Your task to perform on an android device: Open Youtube and go to "Your channel" Image 0: 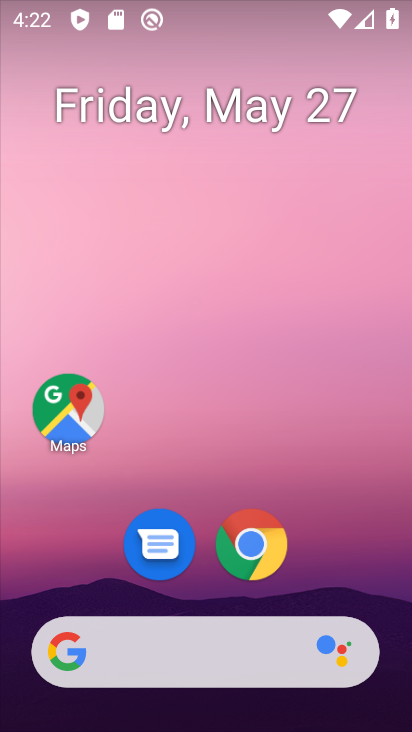
Step 0: drag from (63, 610) to (160, 126)
Your task to perform on an android device: Open Youtube and go to "Your channel" Image 1: 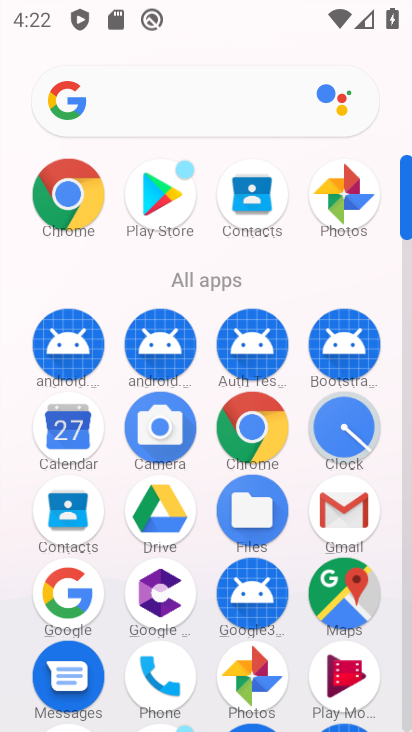
Step 1: drag from (179, 509) to (245, 288)
Your task to perform on an android device: Open Youtube and go to "Your channel" Image 2: 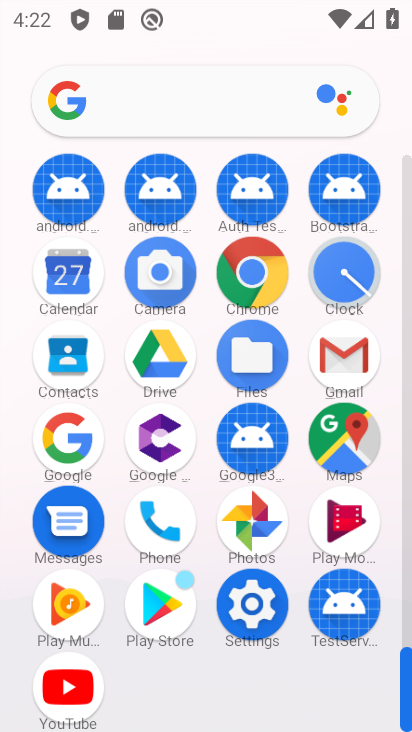
Step 2: click (50, 686)
Your task to perform on an android device: Open Youtube and go to "Your channel" Image 3: 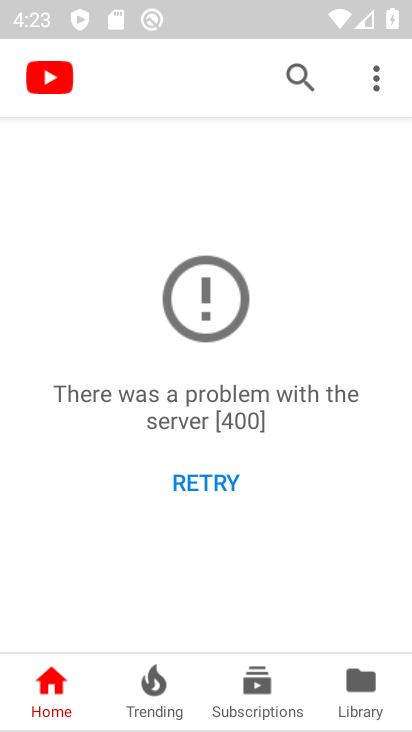
Step 3: click (354, 687)
Your task to perform on an android device: Open Youtube and go to "Your channel" Image 4: 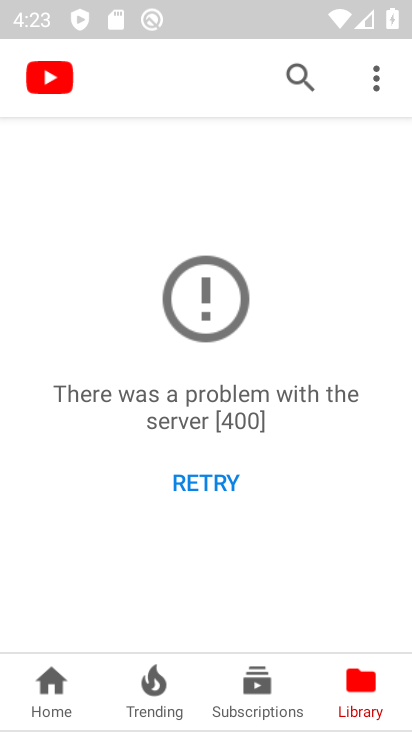
Step 4: task complete